Your task to perform on an android device: move an email to a new category in the gmail app Image 0: 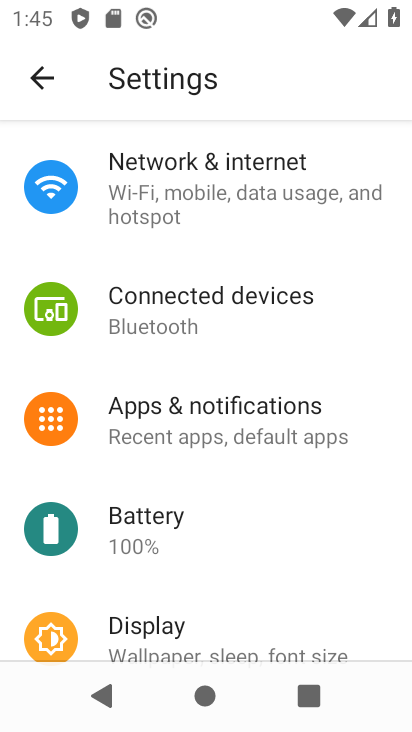
Step 0: press home button
Your task to perform on an android device: move an email to a new category in the gmail app Image 1: 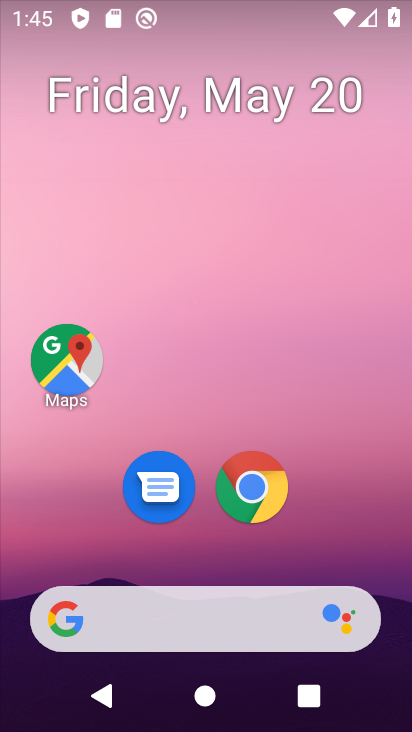
Step 1: drag from (299, 470) to (357, 68)
Your task to perform on an android device: move an email to a new category in the gmail app Image 2: 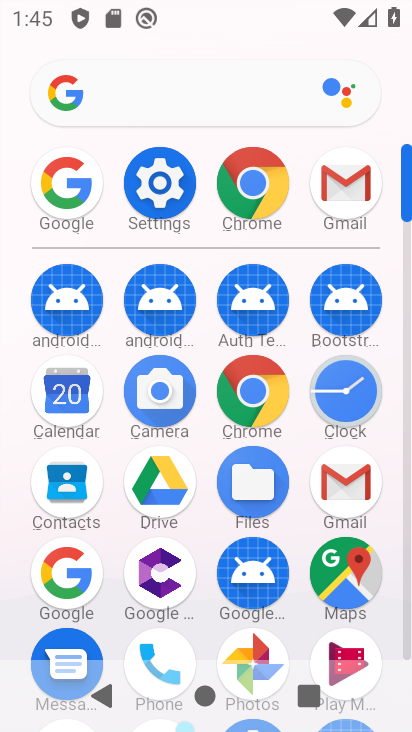
Step 2: click (337, 194)
Your task to perform on an android device: move an email to a new category in the gmail app Image 3: 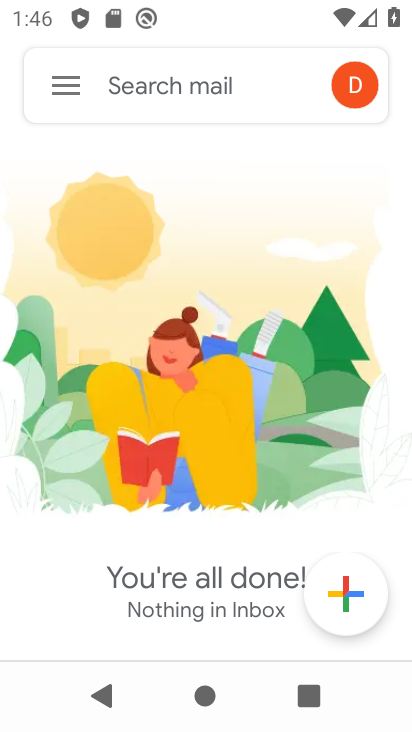
Step 3: task complete